Your task to perform on an android device: set the timer Image 0: 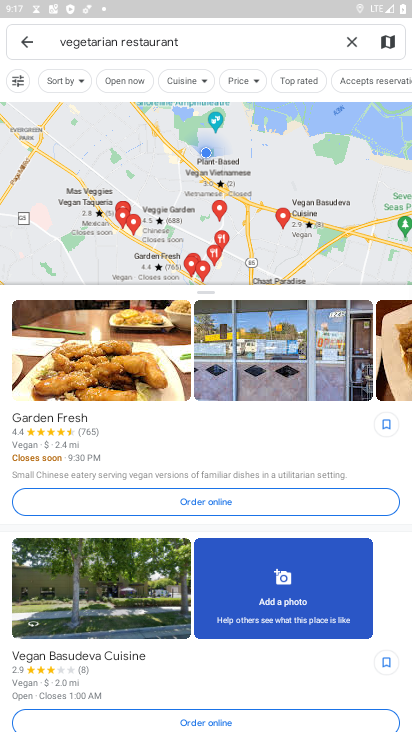
Step 0: press home button
Your task to perform on an android device: set the timer Image 1: 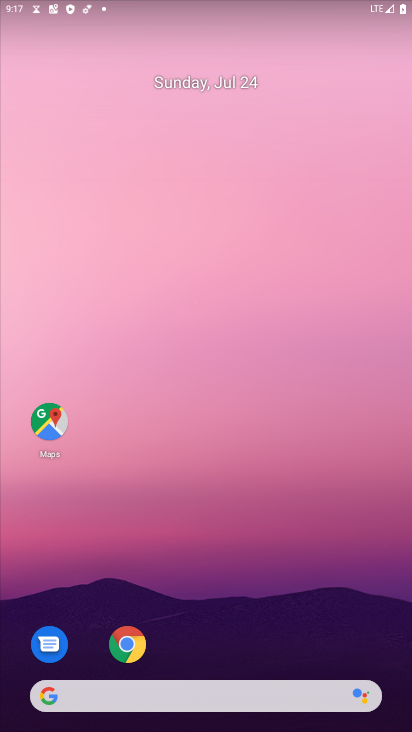
Step 1: drag from (241, 619) to (231, 146)
Your task to perform on an android device: set the timer Image 2: 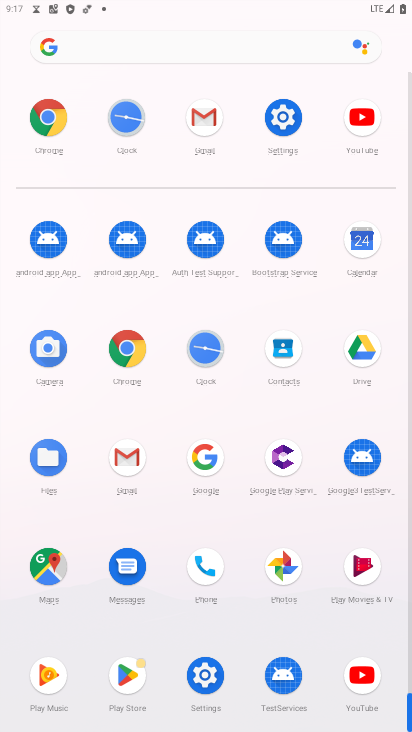
Step 2: click (211, 338)
Your task to perform on an android device: set the timer Image 3: 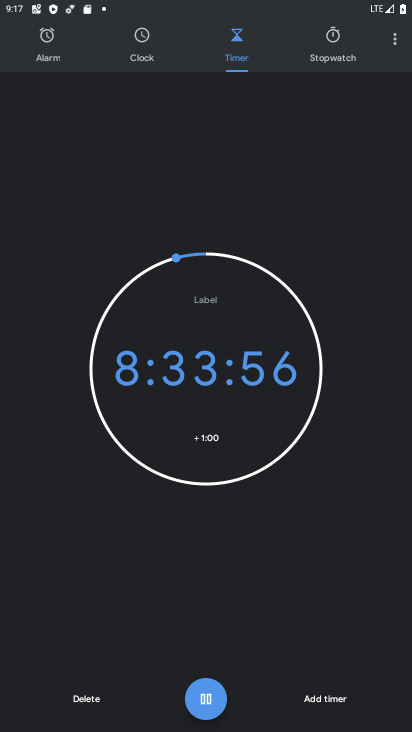
Step 3: task complete